Your task to perform on an android device: change text size in settings app Image 0: 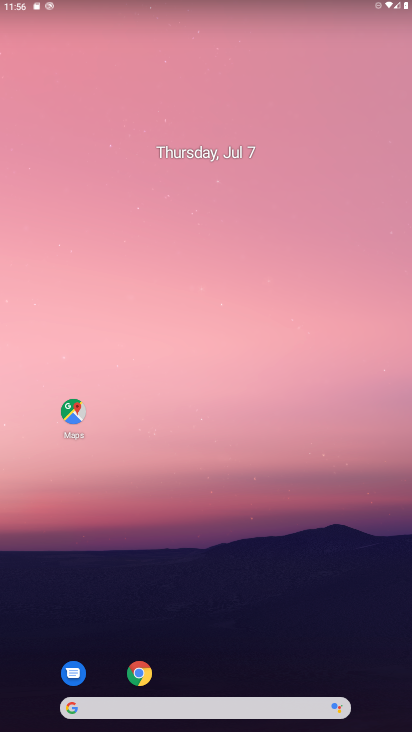
Step 0: drag from (394, 719) to (282, 81)
Your task to perform on an android device: change text size in settings app Image 1: 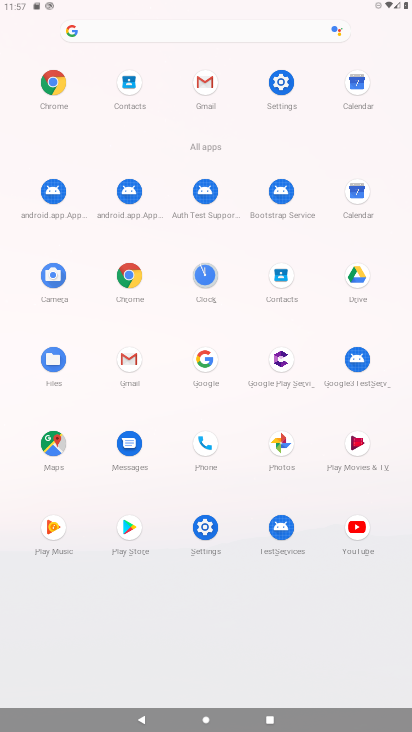
Step 1: click (282, 82)
Your task to perform on an android device: change text size in settings app Image 2: 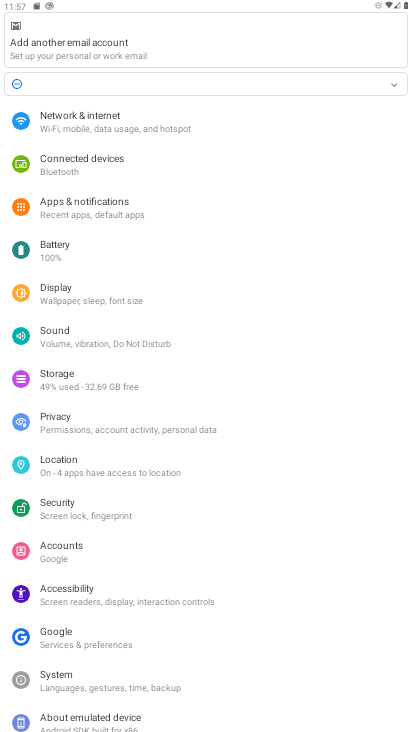
Step 2: click (60, 292)
Your task to perform on an android device: change text size in settings app Image 3: 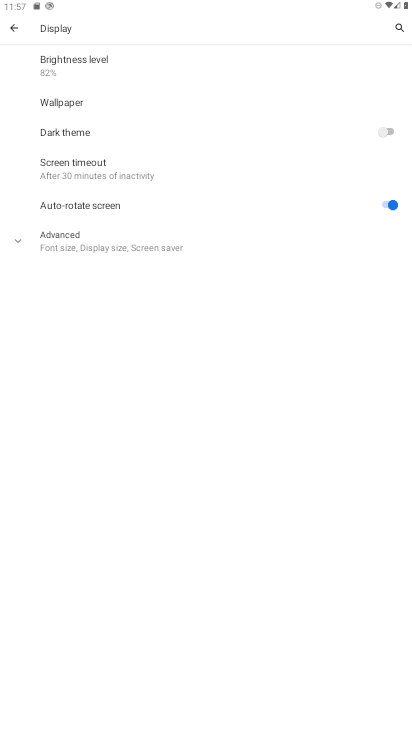
Step 3: click (22, 242)
Your task to perform on an android device: change text size in settings app Image 4: 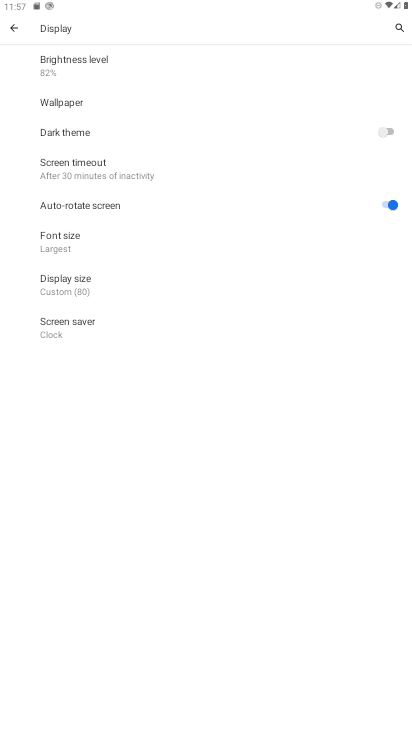
Step 4: click (71, 236)
Your task to perform on an android device: change text size in settings app Image 5: 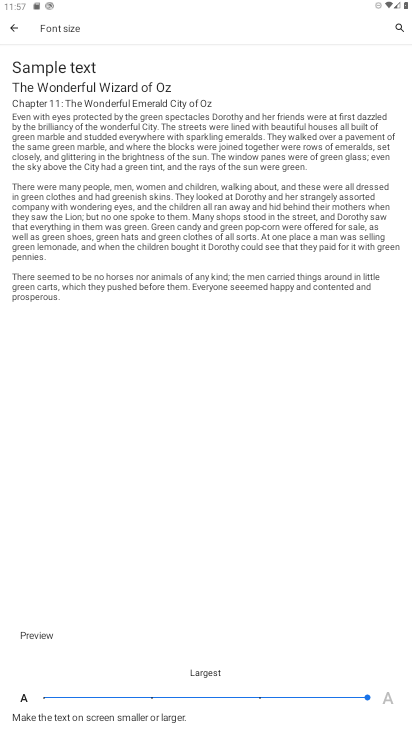
Step 5: click (255, 699)
Your task to perform on an android device: change text size in settings app Image 6: 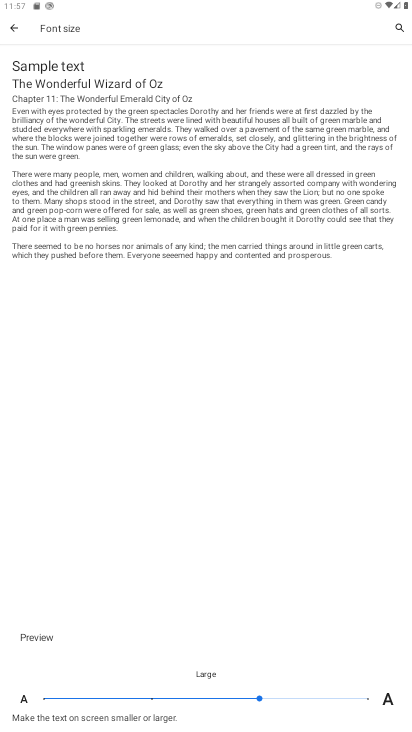
Step 6: click (368, 696)
Your task to perform on an android device: change text size in settings app Image 7: 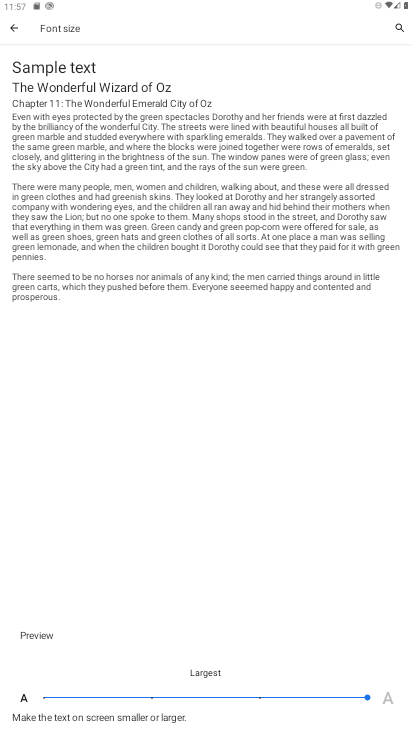
Step 7: task complete